Your task to perform on an android device: check data usage Image 0: 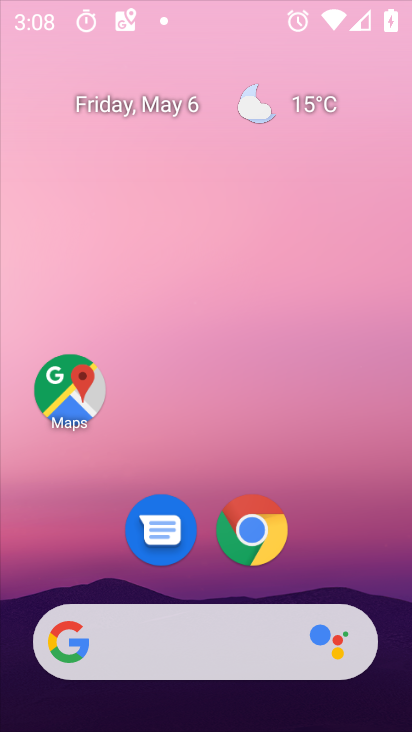
Step 0: drag from (407, 302) to (392, 21)
Your task to perform on an android device: check data usage Image 1: 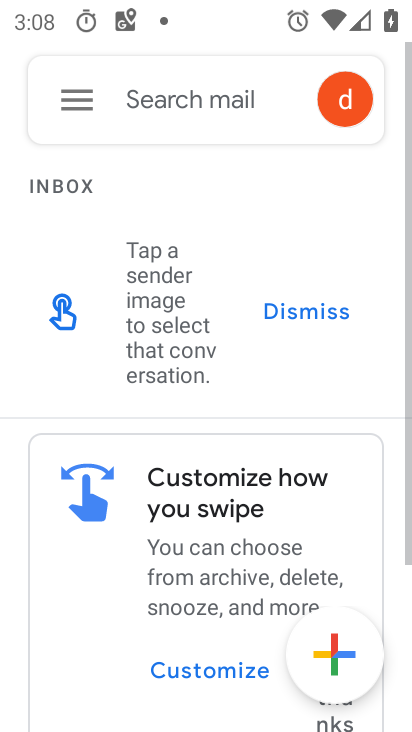
Step 1: press home button
Your task to perform on an android device: check data usage Image 2: 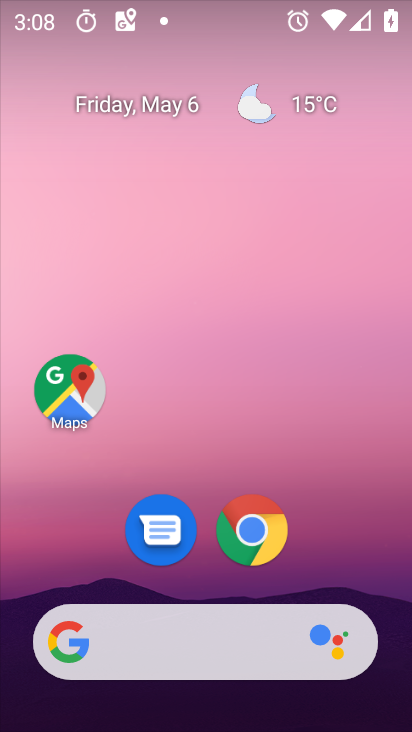
Step 2: drag from (381, 527) to (104, 5)
Your task to perform on an android device: check data usage Image 3: 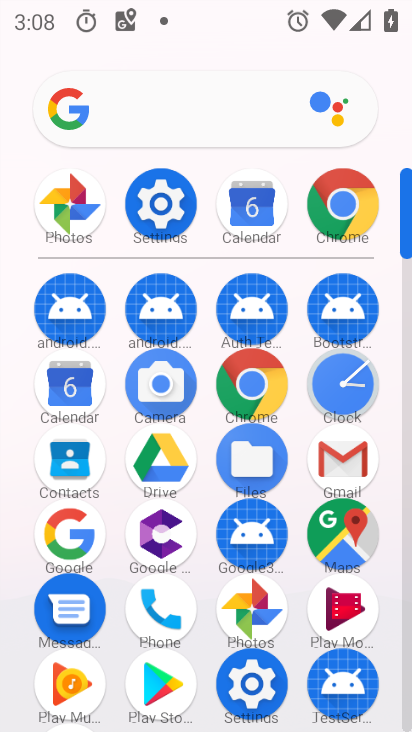
Step 3: click (149, 246)
Your task to perform on an android device: check data usage Image 4: 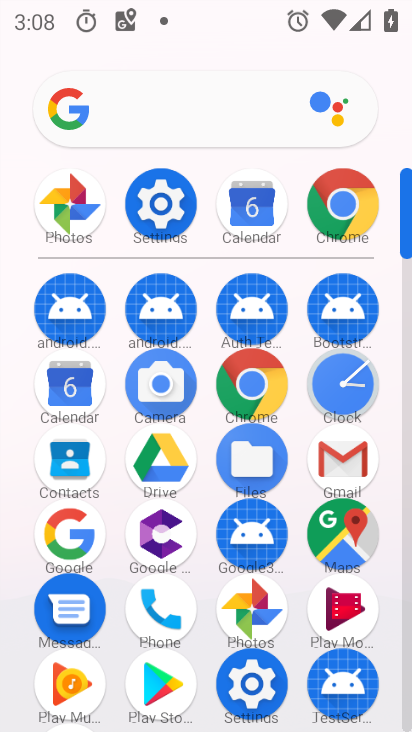
Step 4: click (143, 217)
Your task to perform on an android device: check data usage Image 5: 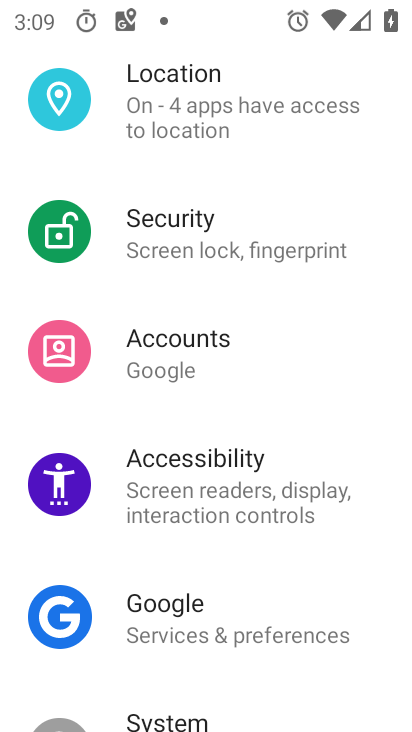
Step 5: drag from (220, 178) to (188, 563)
Your task to perform on an android device: check data usage Image 6: 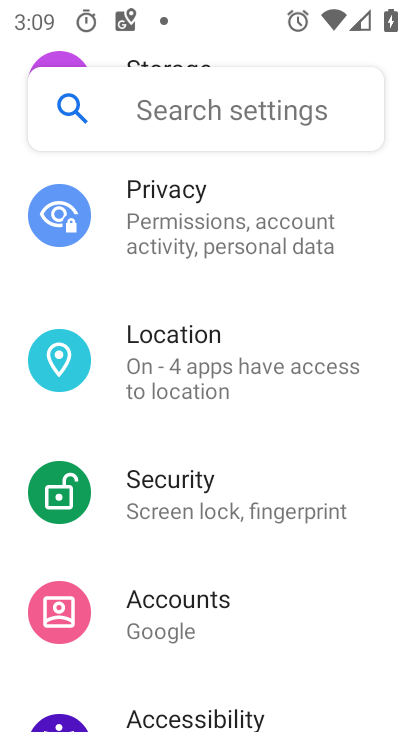
Step 6: drag from (145, 107) to (148, 554)
Your task to perform on an android device: check data usage Image 7: 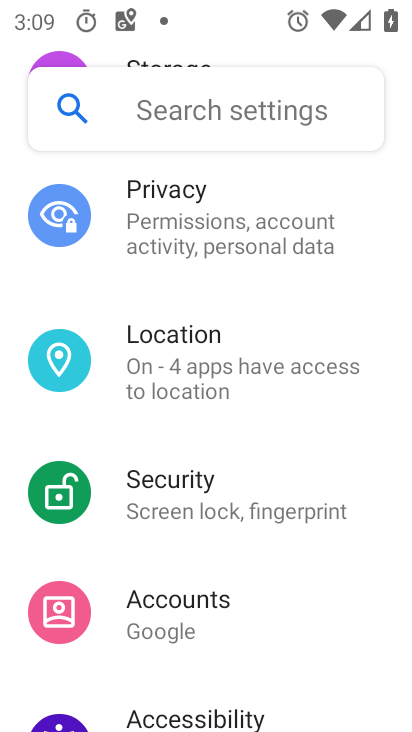
Step 7: drag from (148, 237) to (195, 623)
Your task to perform on an android device: check data usage Image 8: 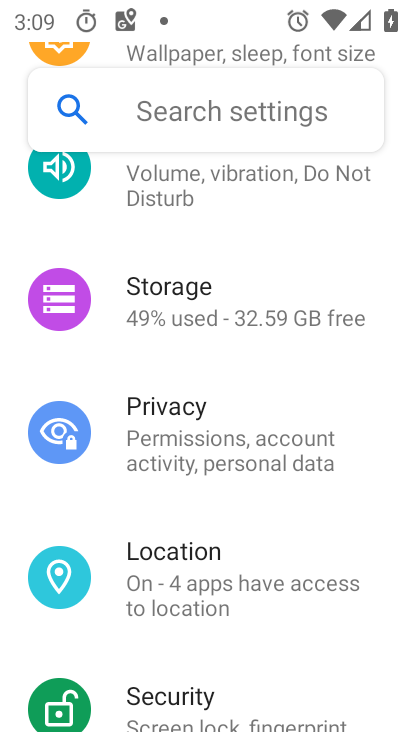
Step 8: drag from (100, 175) to (156, 698)
Your task to perform on an android device: check data usage Image 9: 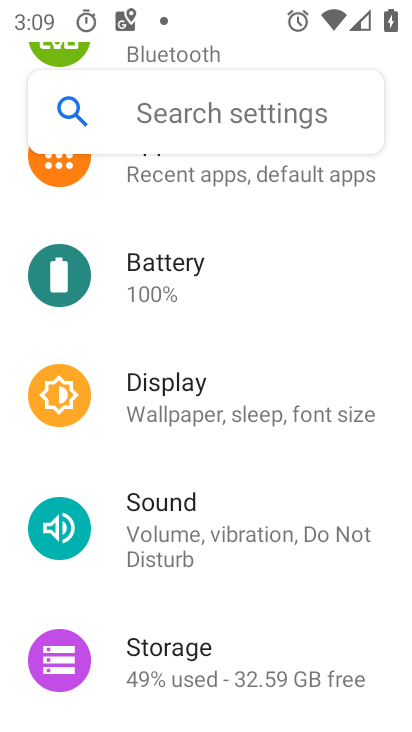
Step 9: drag from (233, 157) to (282, 669)
Your task to perform on an android device: check data usage Image 10: 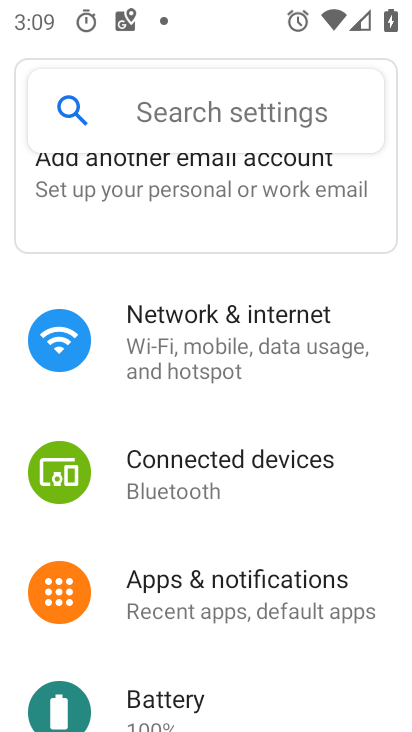
Step 10: drag from (186, 385) to (216, 697)
Your task to perform on an android device: check data usage Image 11: 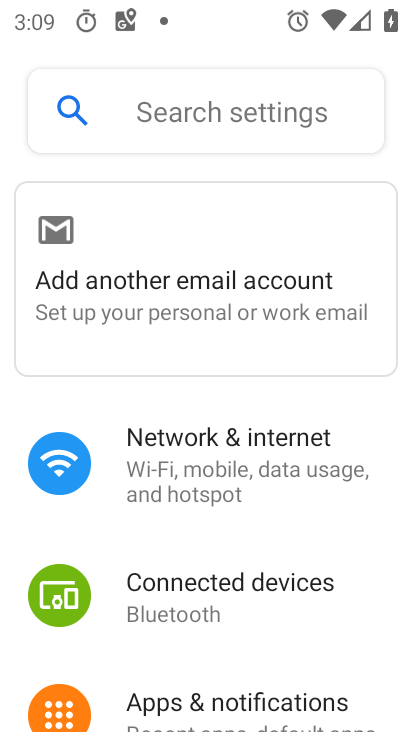
Step 11: click (180, 475)
Your task to perform on an android device: check data usage Image 12: 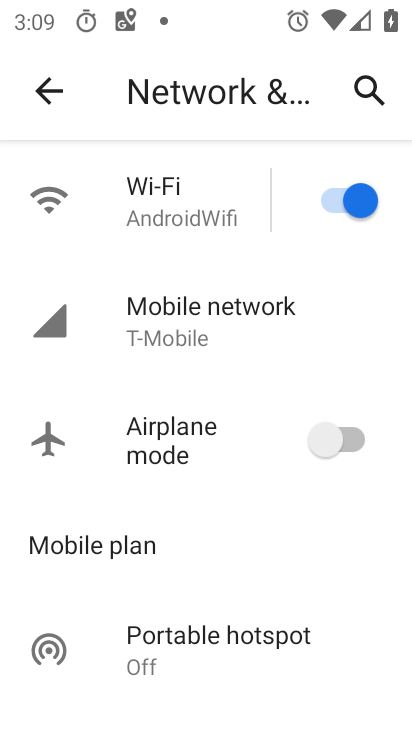
Step 12: click (165, 337)
Your task to perform on an android device: check data usage Image 13: 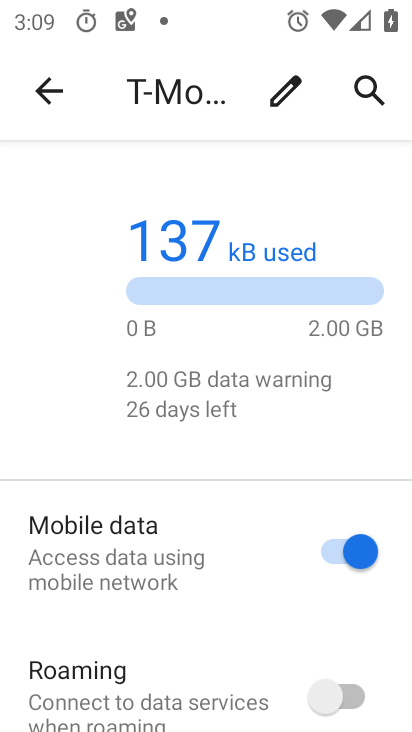
Step 13: task complete